Your task to perform on an android device: allow cookies in the chrome app Image 0: 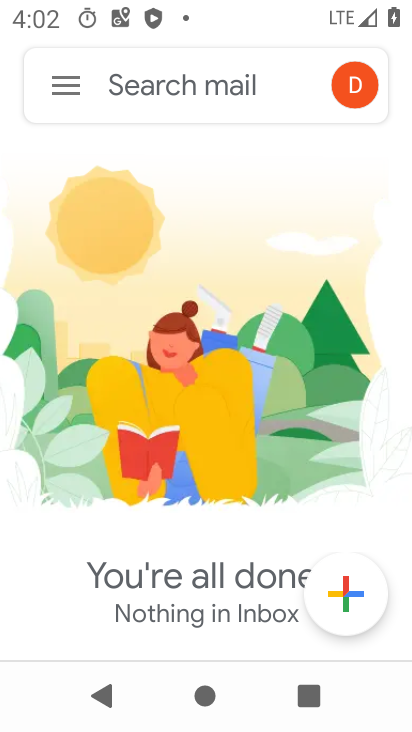
Step 0: press home button
Your task to perform on an android device: allow cookies in the chrome app Image 1: 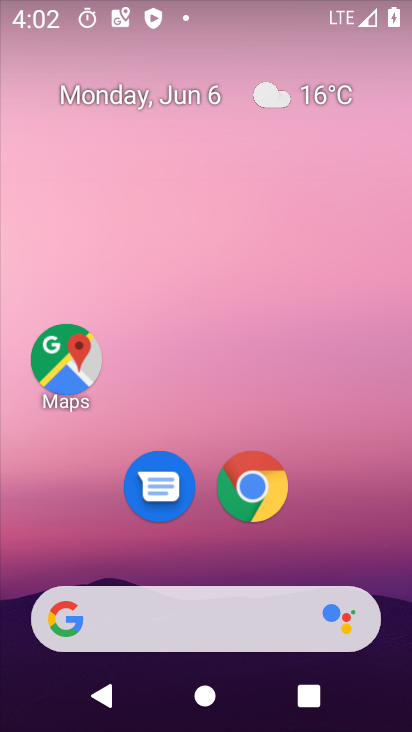
Step 1: drag from (336, 495) to (399, 92)
Your task to perform on an android device: allow cookies in the chrome app Image 2: 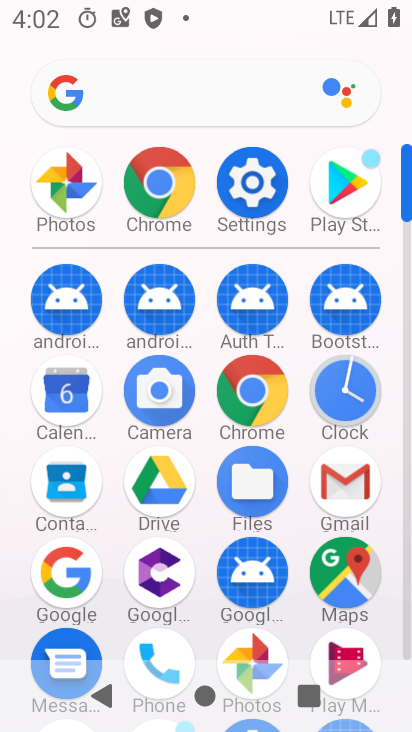
Step 2: click (251, 398)
Your task to perform on an android device: allow cookies in the chrome app Image 3: 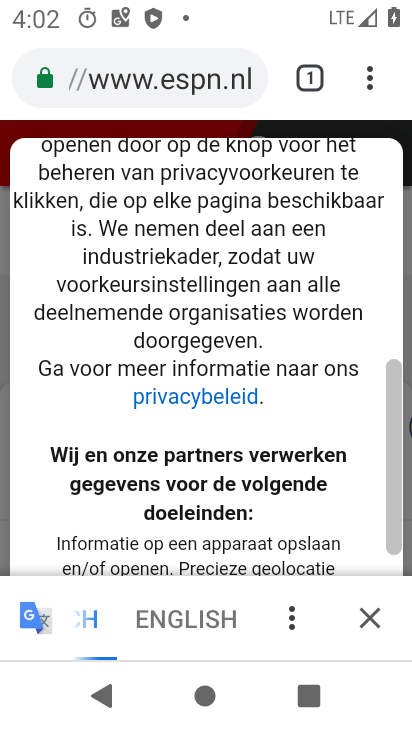
Step 3: drag from (389, 73) to (172, 111)
Your task to perform on an android device: allow cookies in the chrome app Image 4: 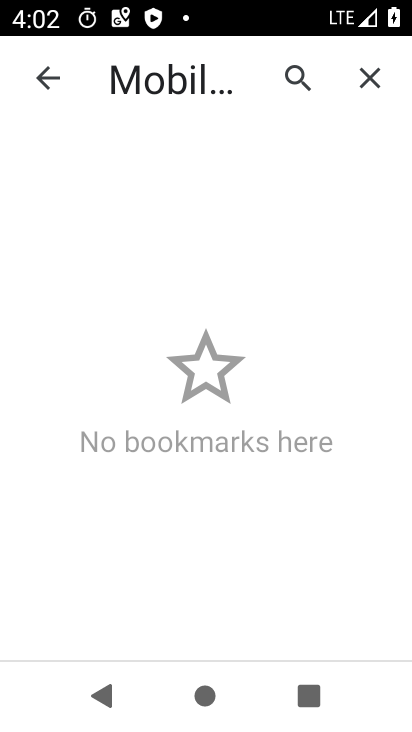
Step 4: click (367, 78)
Your task to perform on an android device: allow cookies in the chrome app Image 5: 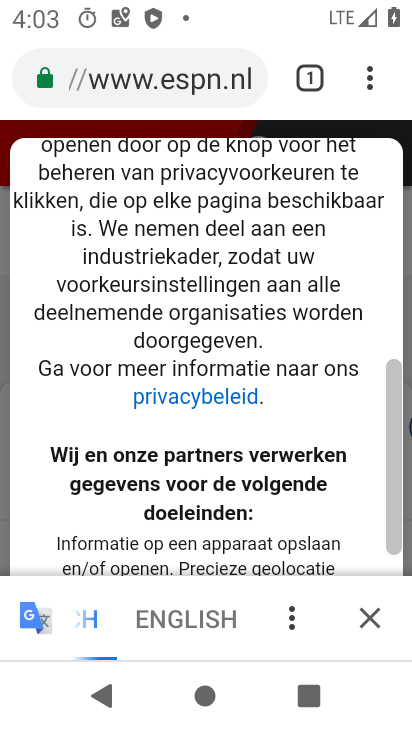
Step 5: drag from (370, 75) to (233, 434)
Your task to perform on an android device: allow cookies in the chrome app Image 6: 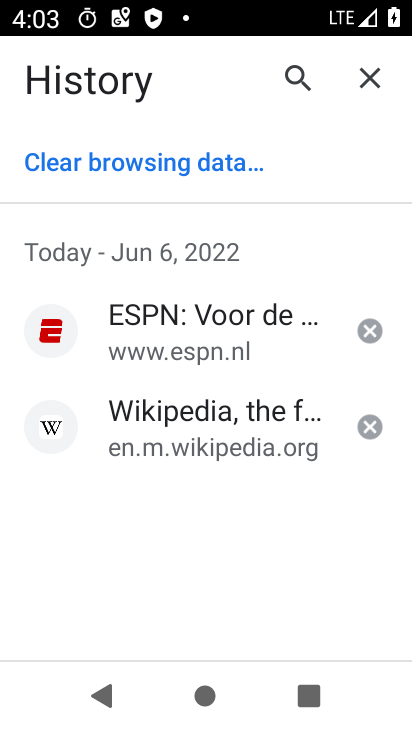
Step 6: click (226, 163)
Your task to perform on an android device: allow cookies in the chrome app Image 7: 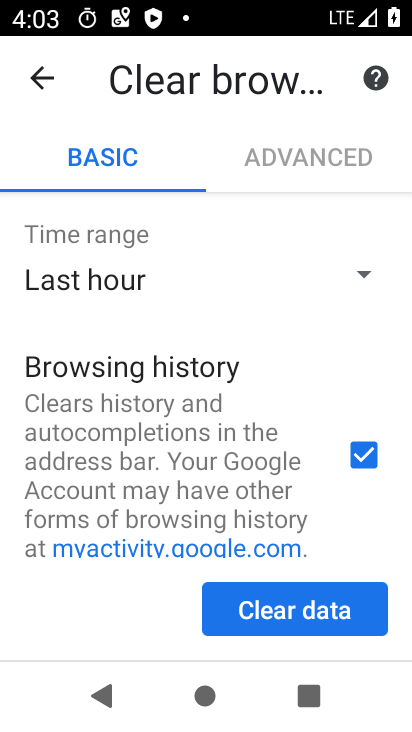
Step 7: click (224, 263)
Your task to perform on an android device: allow cookies in the chrome app Image 8: 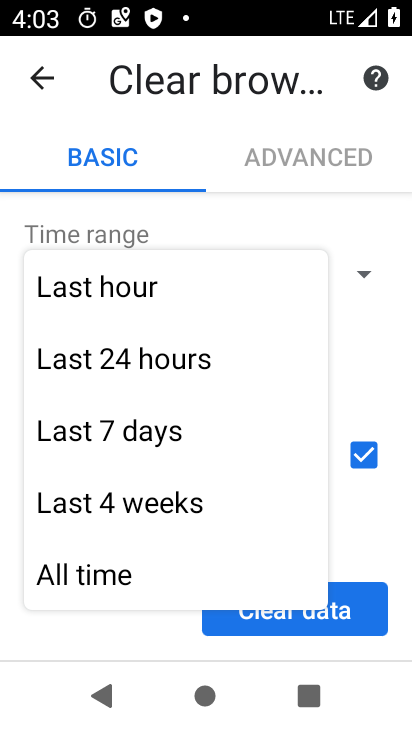
Step 8: click (144, 569)
Your task to perform on an android device: allow cookies in the chrome app Image 9: 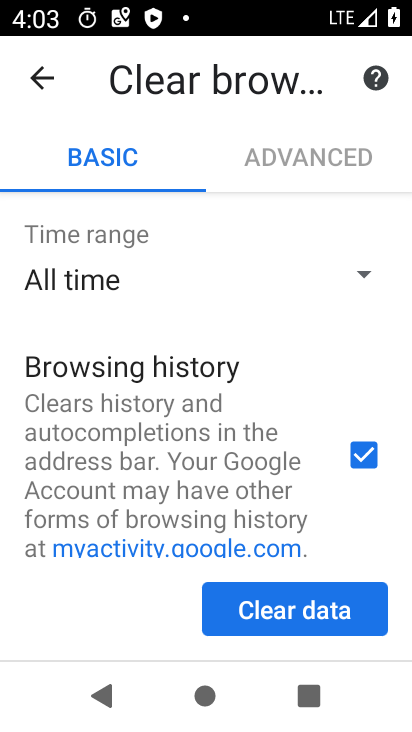
Step 9: drag from (254, 489) to (338, 156)
Your task to perform on an android device: allow cookies in the chrome app Image 10: 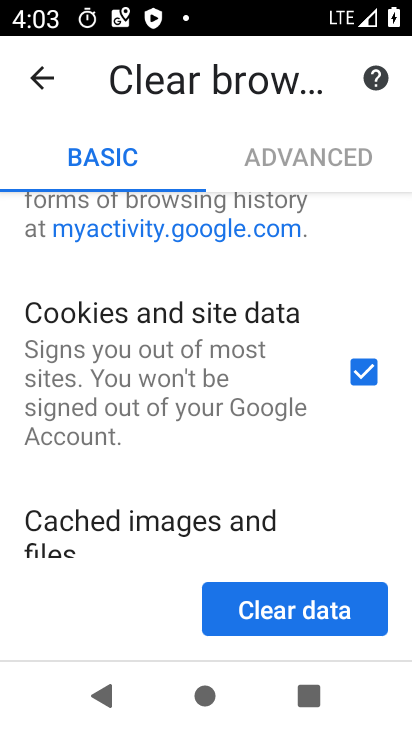
Step 10: drag from (226, 448) to (353, 224)
Your task to perform on an android device: allow cookies in the chrome app Image 11: 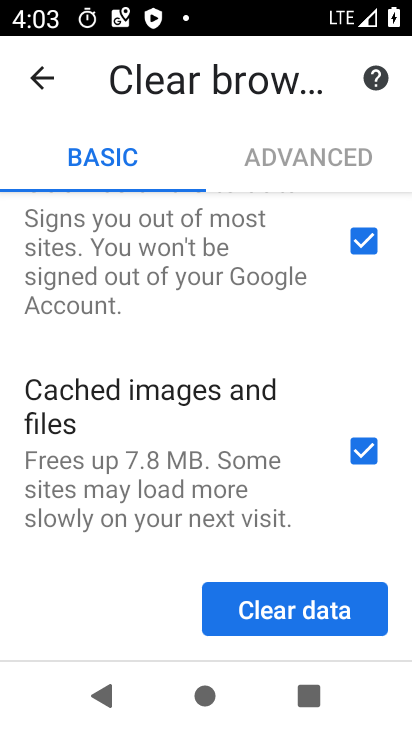
Step 11: click (260, 636)
Your task to perform on an android device: allow cookies in the chrome app Image 12: 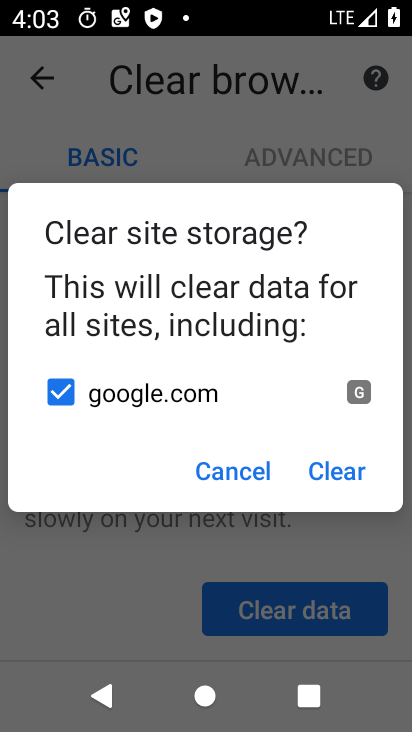
Step 12: click (337, 468)
Your task to perform on an android device: allow cookies in the chrome app Image 13: 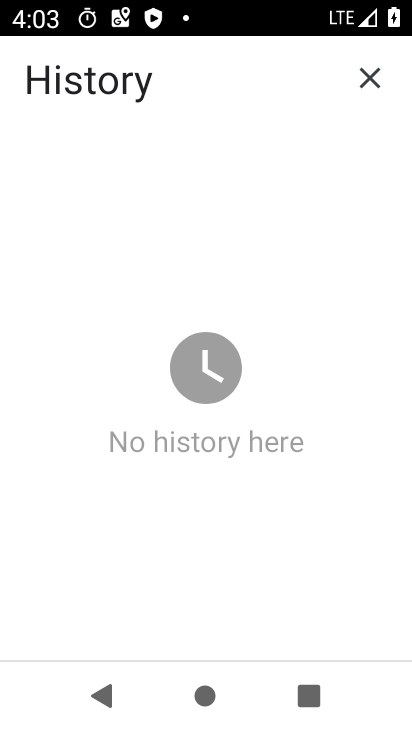
Step 13: task complete